Your task to perform on an android device: open a bookmark in the chrome app Image 0: 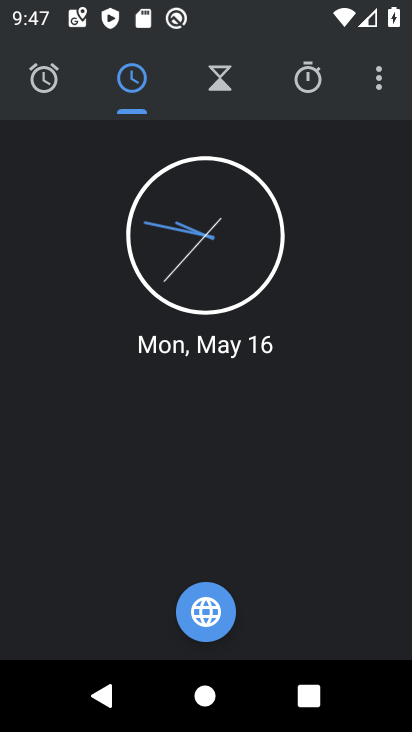
Step 0: press home button
Your task to perform on an android device: open a bookmark in the chrome app Image 1: 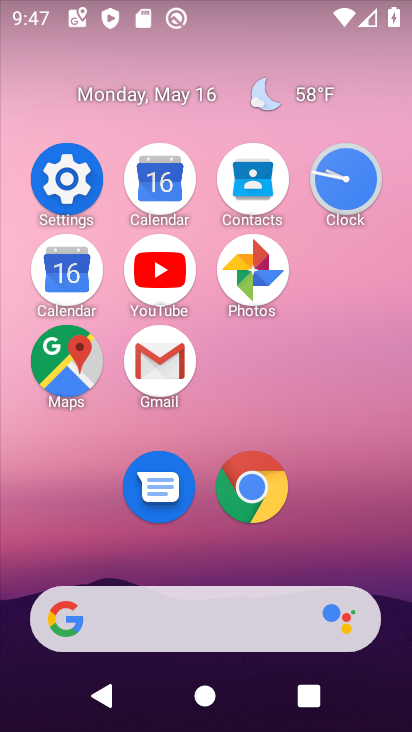
Step 1: click (258, 511)
Your task to perform on an android device: open a bookmark in the chrome app Image 2: 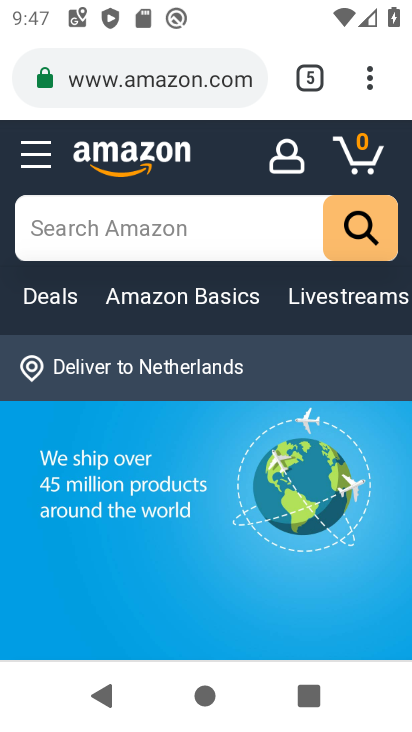
Step 2: click (370, 68)
Your task to perform on an android device: open a bookmark in the chrome app Image 3: 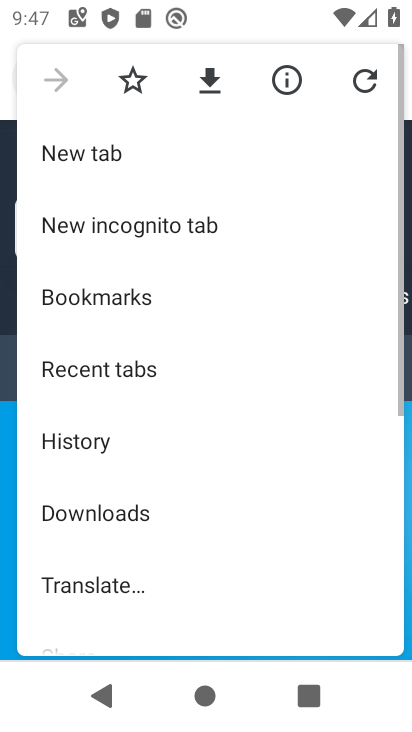
Step 3: drag from (144, 517) to (235, 155)
Your task to perform on an android device: open a bookmark in the chrome app Image 4: 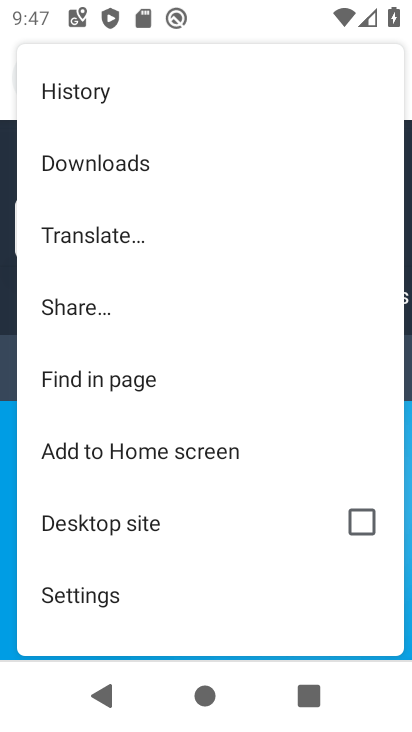
Step 4: drag from (215, 184) to (161, 577)
Your task to perform on an android device: open a bookmark in the chrome app Image 5: 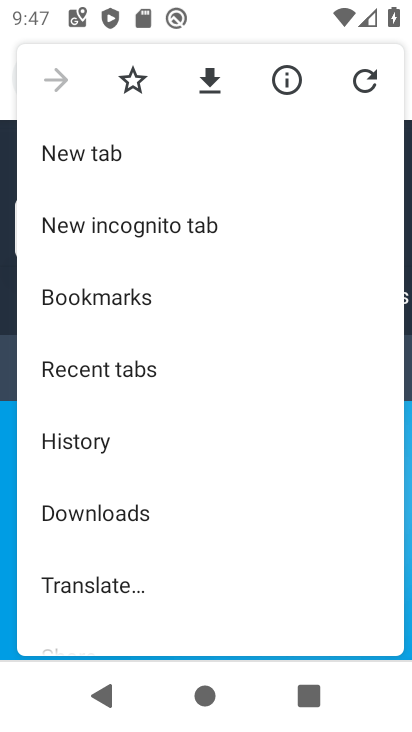
Step 5: click (145, 277)
Your task to perform on an android device: open a bookmark in the chrome app Image 6: 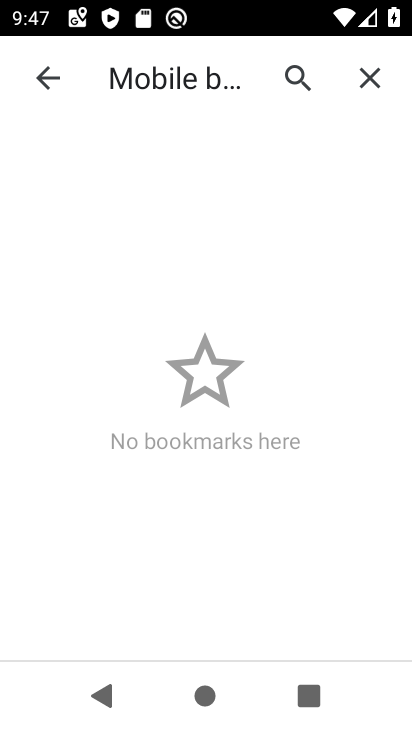
Step 6: task complete